Your task to perform on an android device: change timer sound Image 0: 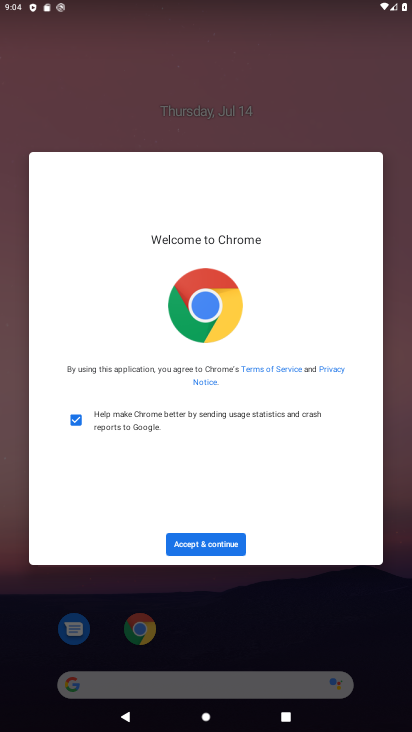
Step 0: click (196, 538)
Your task to perform on an android device: change timer sound Image 1: 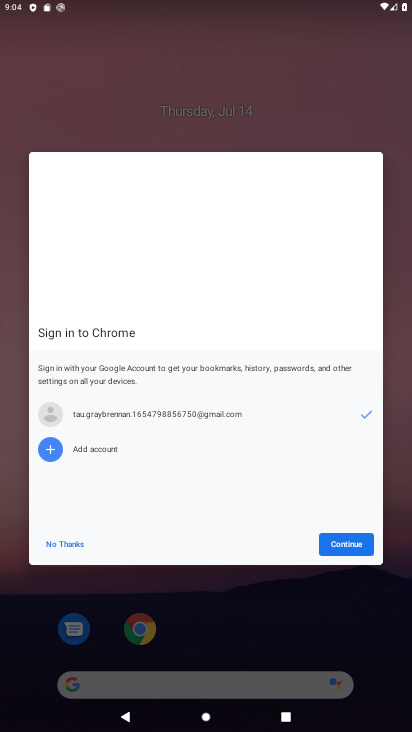
Step 1: click (325, 549)
Your task to perform on an android device: change timer sound Image 2: 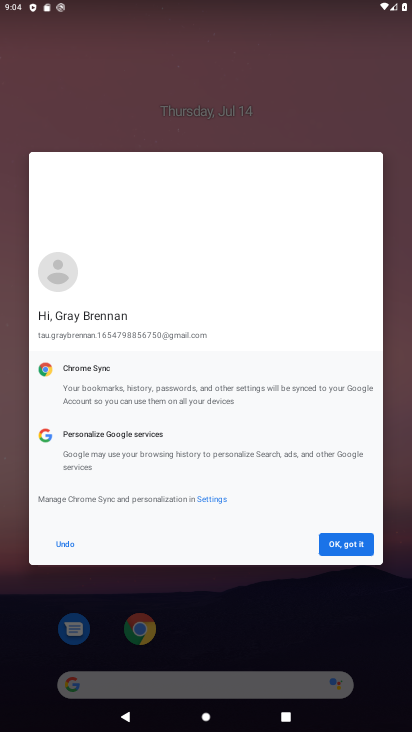
Step 2: click (324, 549)
Your task to perform on an android device: change timer sound Image 3: 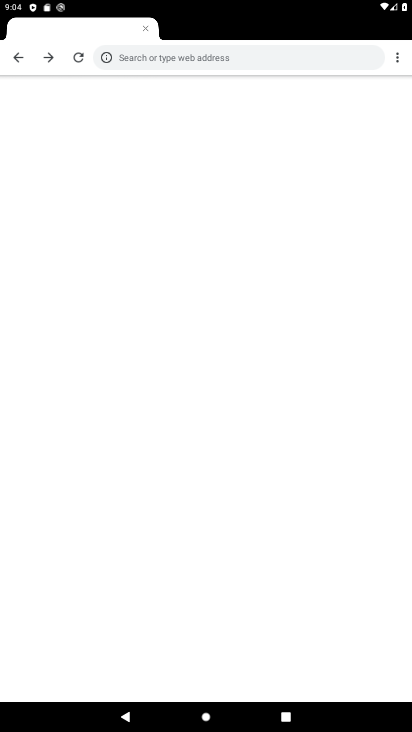
Step 3: press back button
Your task to perform on an android device: change timer sound Image 4: 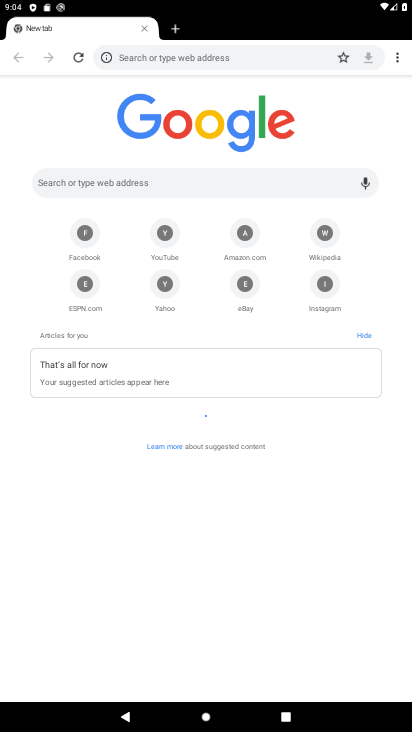
Step 4: press back button
Your task to perform on an android device: change timer sound Image 5: 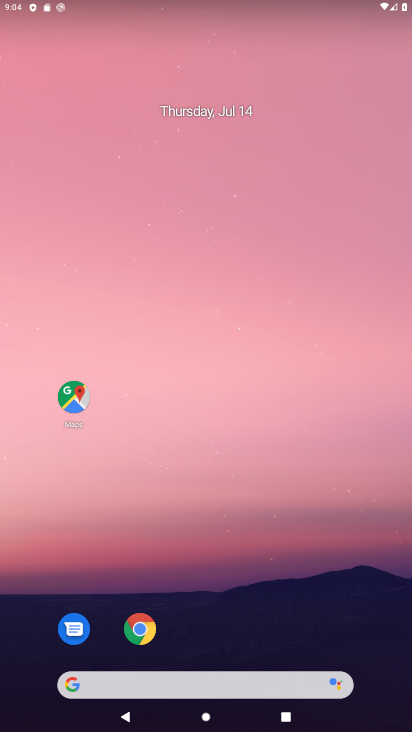
Step 5: drag from (255, 627) to (326, 4)
Your task to perform on an android device: change timer sound Image 6: 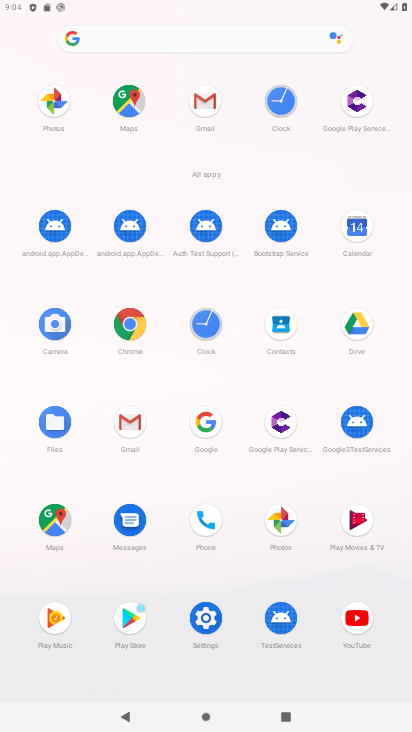
Step 6: click (210, 632)
Your task to perform on an android device: change timer sound Image 7: 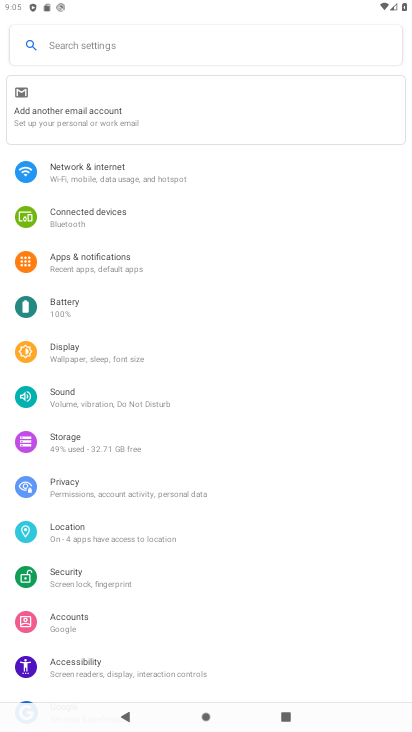
Step 7: click (82, 350)
Your task to perform on an android device: change timer sound Image 8: 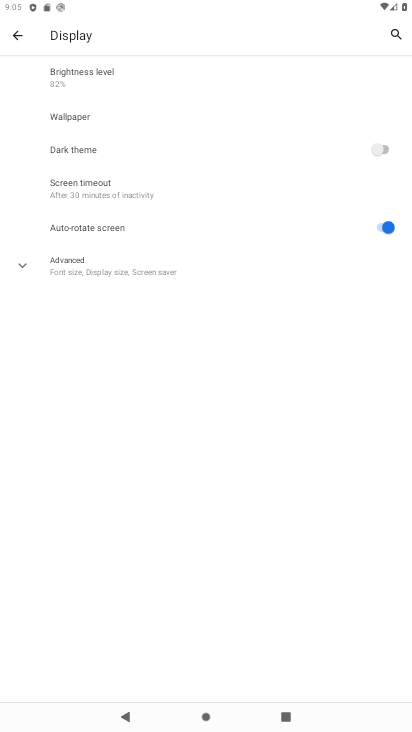
Step 8: click (140, 266)
Your task to perform on an android device: change timer sound Image 9: 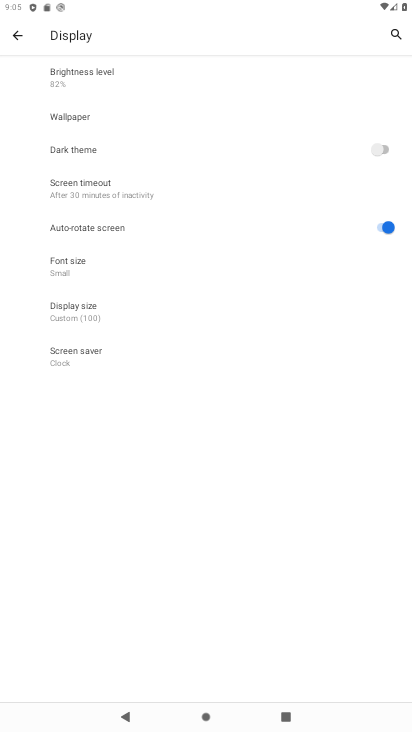
Step 9: click (110, 301)
Your task to perform on an android device: change timer sound Image 10: 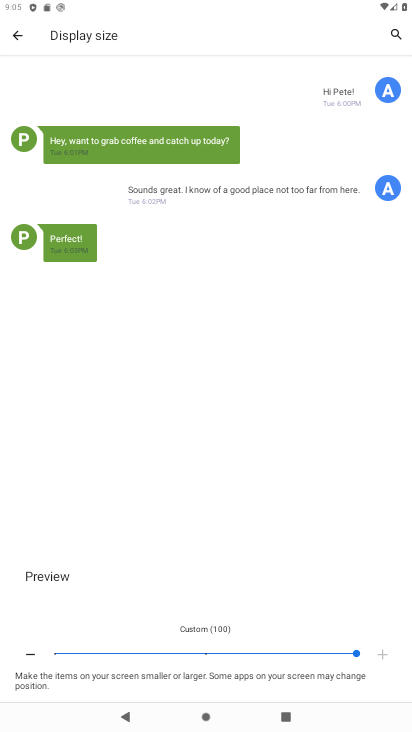
Step 10: click (208, 646)
Your task to perform on an android device: change timer sound Image 11: 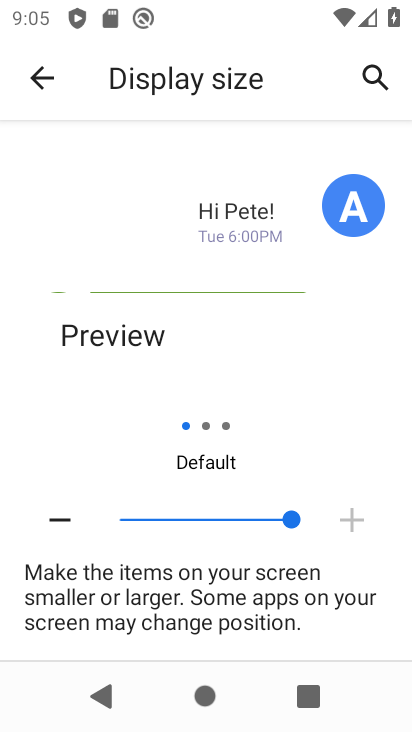
Step 11: click (42, 58)
Your task to perform on an android device: change timer sound Image 12: 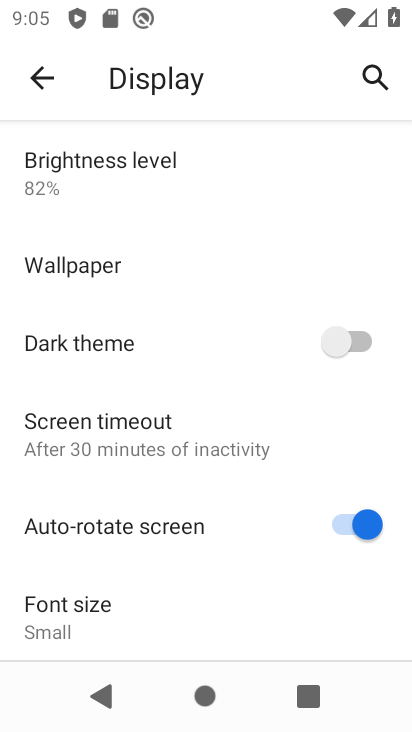
Step 12: click (42, 58)
Your task to perform on an android device: change timer sound Image 13: 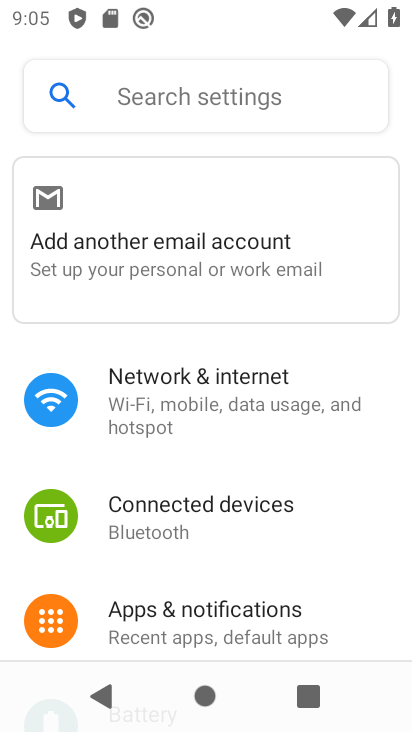
Step 13: press back button
Your task to perform on an android device: change timer sound Image 14: 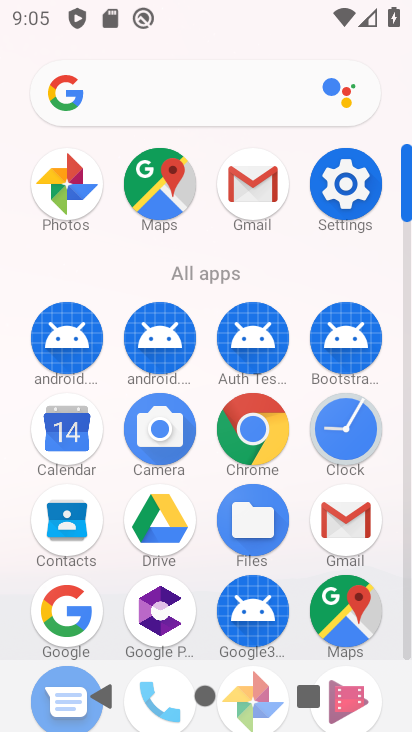
Step 14: click (359, 418)
Your task to perform on an android device: change timer sound Image 15: 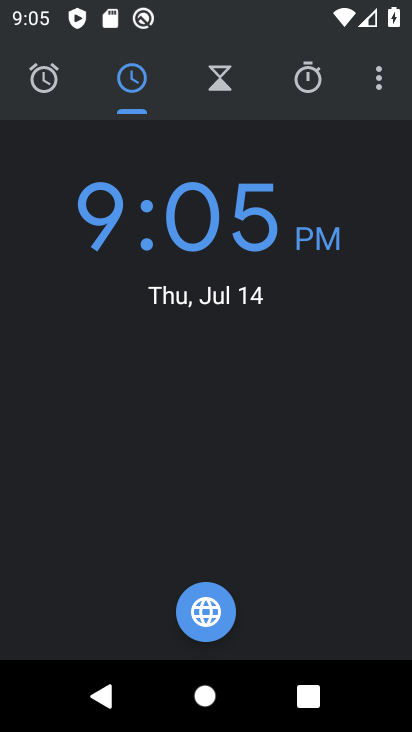
Step 15: click (381, 64)
Your task to perform on an android device: change timer sound Image 16: 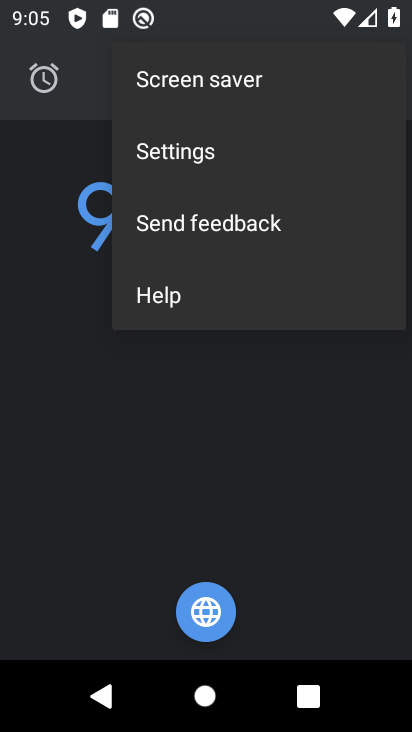
Step 16: click (202, 138)
Your task to perform on an android device: change timer sound Image 17: 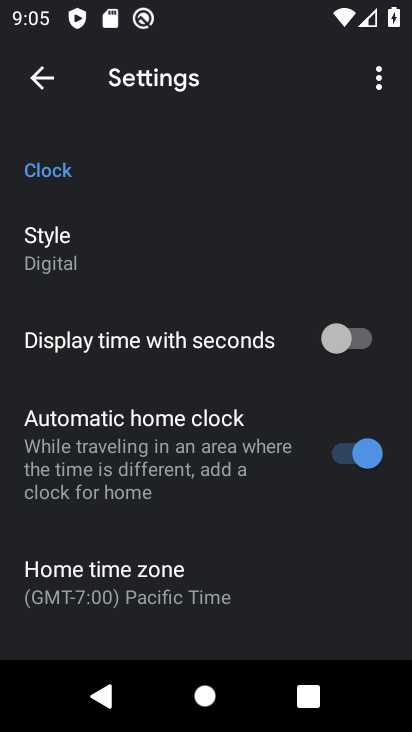
Step 17: drag from (206, 515) to (291, 8)
Your task to perform on an android device: change timer sound Image 18: 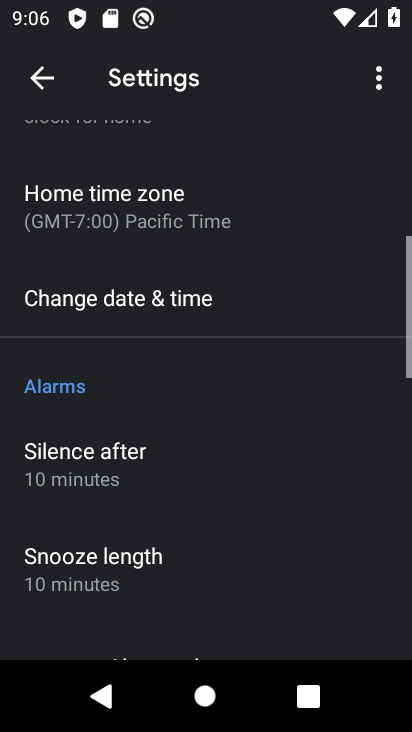
Step 18: drag from (208, 550) to (247, 209)
Your task to perform on an android device: change timer sound Image 19: 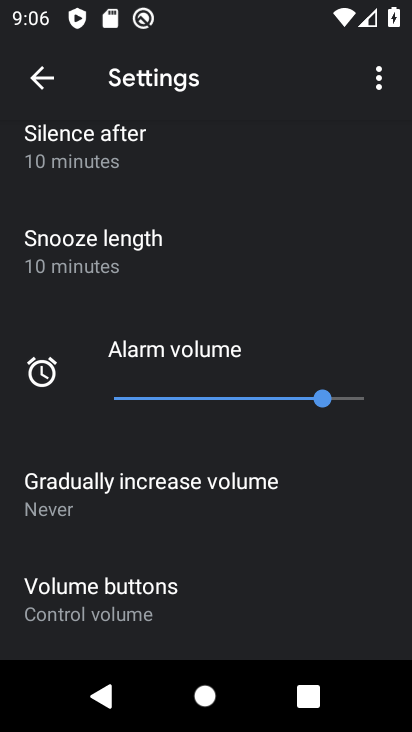
Step 19: drag from (179, 616) to (224, 261)
Your task to perform on an android device: change timer sound Image 20: 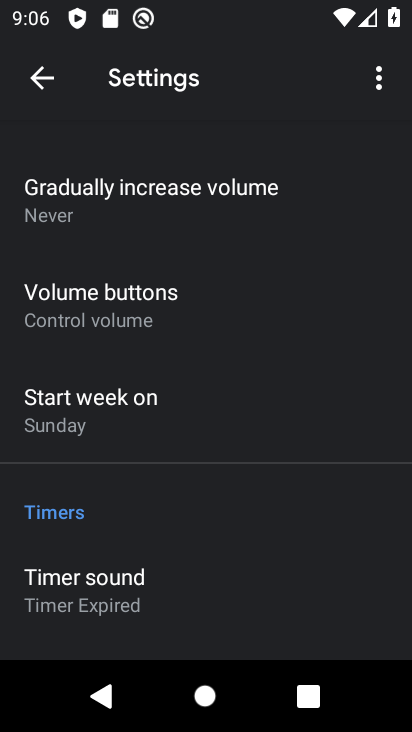
Step 20: click (140, 566)
Your task to perform on an android device: change timer sound Image 21: 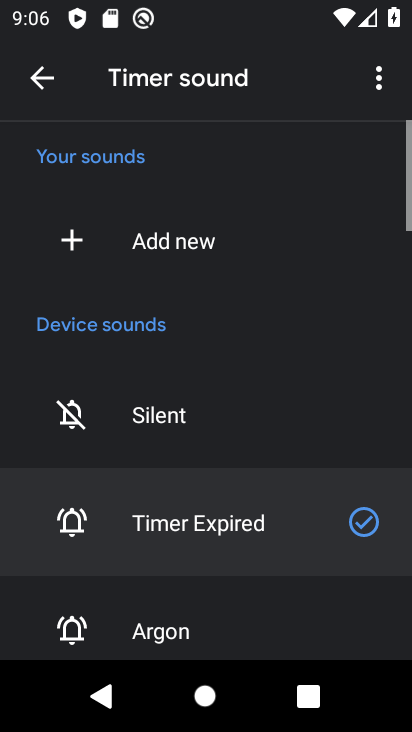
Step 21: drag from (154, 605) to (241, 271)
Your task to perform on an android device: change timer sound Image 22: 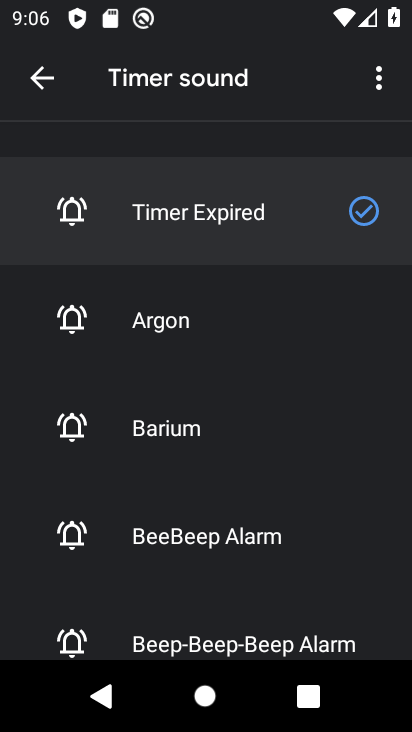
Step 22: click (172, 328)
Your task to perform on an android device: change timer sound Image 23: 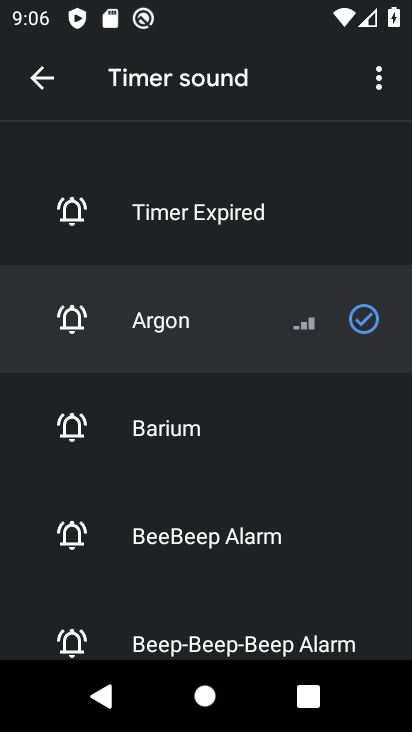
Step 23: task complete